Your task to perform on an android device: turn off airplane mode Image 0: 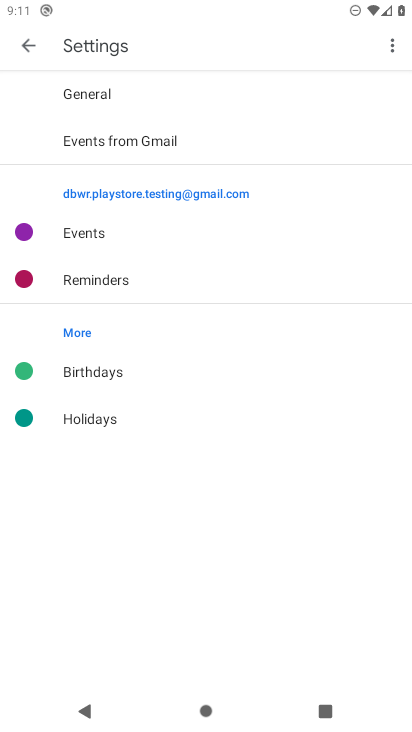
Step 0: press home button
Your task to perform on an android device: turn off airplane mode Image 1: 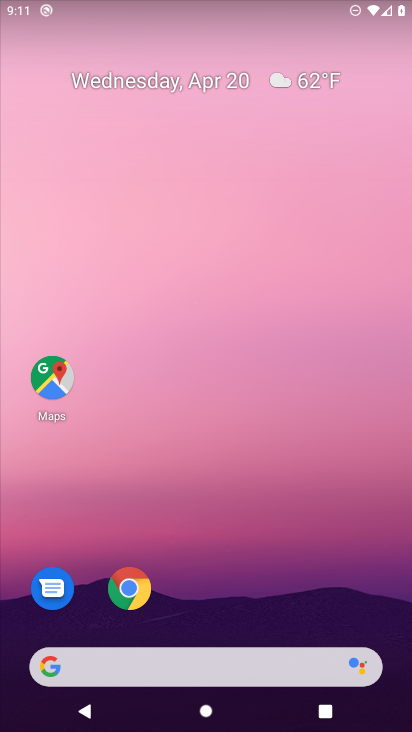
Step 1: task complete